Your task to perform on an android device: Go to Yahoo.com Image 0: 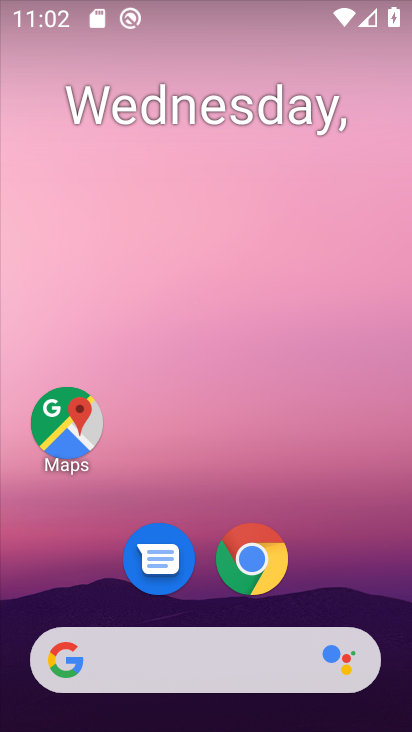
Step 0: drag from (284, 692) to (252, 88)
Your task to perform on an android device: Go to Yahoo.com Image 1: 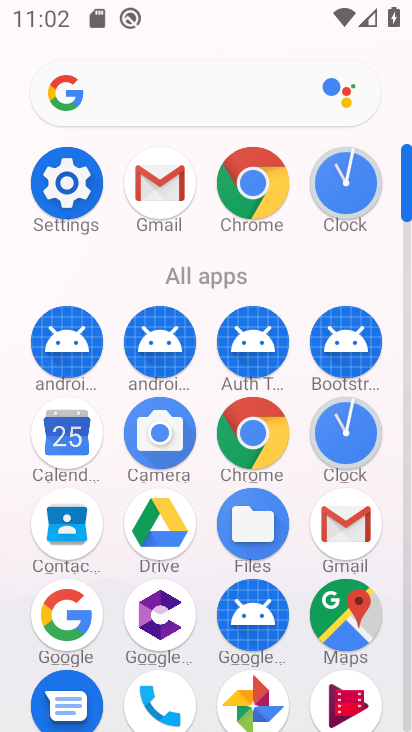
Step 1: click (261, 187)
Your task to perform on an android device: Go to Yahoo.com Image 2: 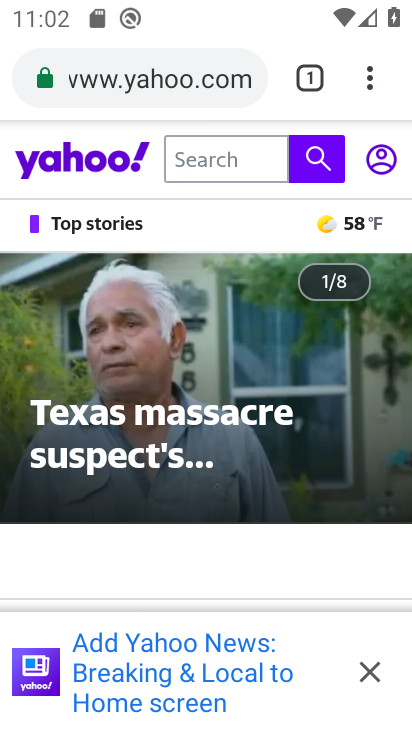
Step 2: click (364, 670)
Your task to perform on an android device: Go to Yahoo.com Image 3: 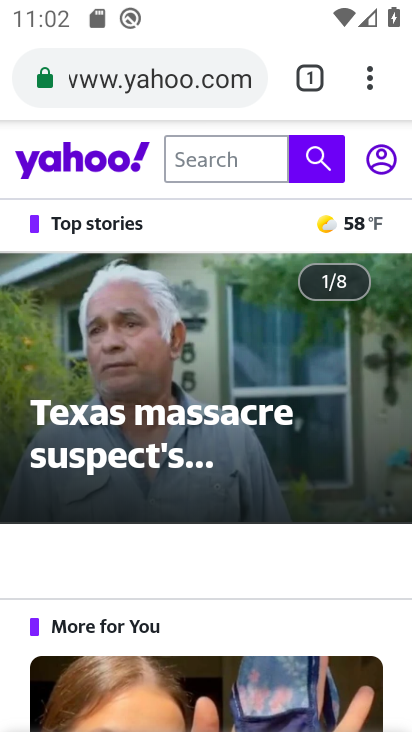
Step 3: click (365, 87)
Your task to perform on an android device: Go to Yahoo.com Image 4: 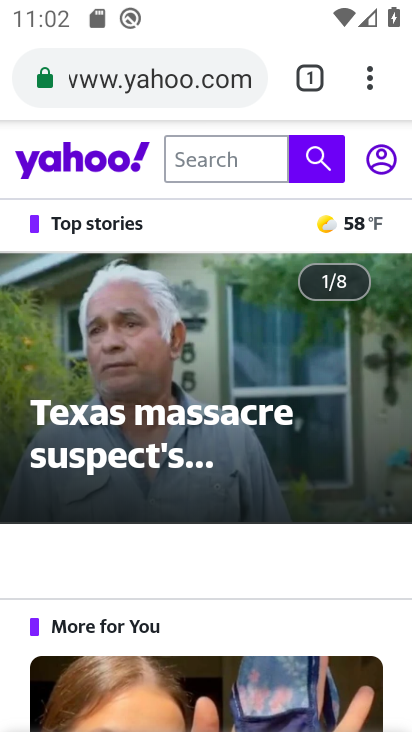
Step 4: click (178, 84)
Your task to perform on an android device: Go to Yahoo.com Image 5: 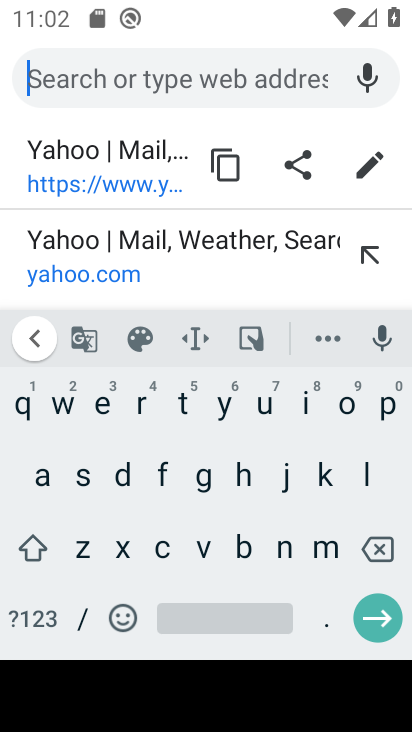
Step 5: click (76, 182)
Your task to perform on an android device: Go to Yahoo.com Image 6: 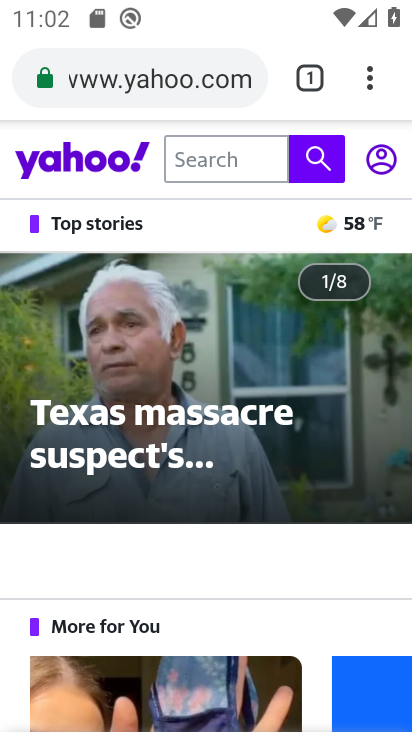
Step 6: task complete